Your task to perform on an android device: Show me popular videos on Youtube Image 0: 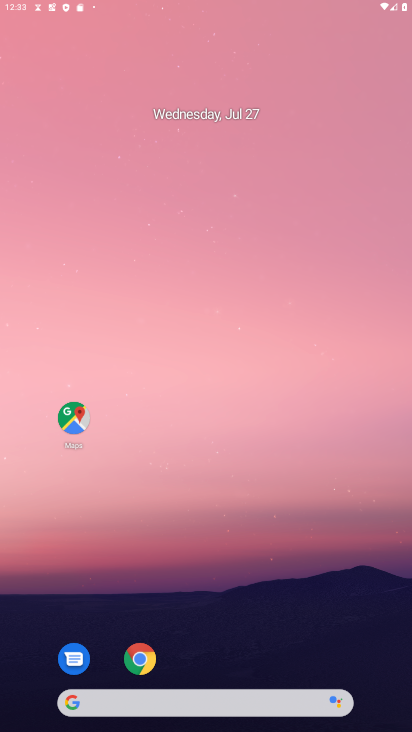
Step 0: press home button
Your task to perform on an android device: Show me popular videos on Youtube Image 1: 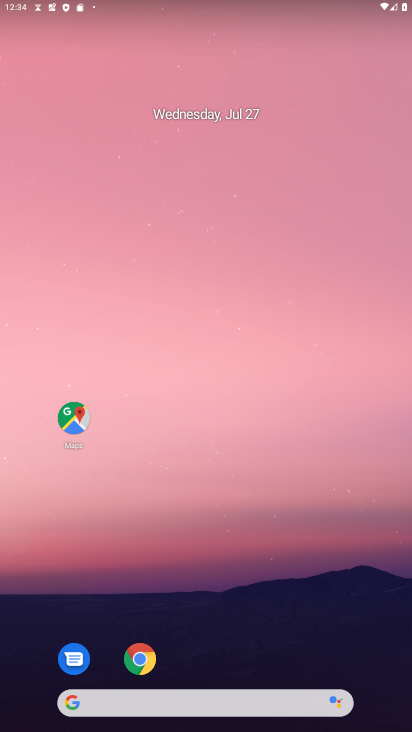
Step 1: drag from (226, 670) to (222, 153)
Your task to perform on an android device: Show me popular videos on Youtube Image 2: 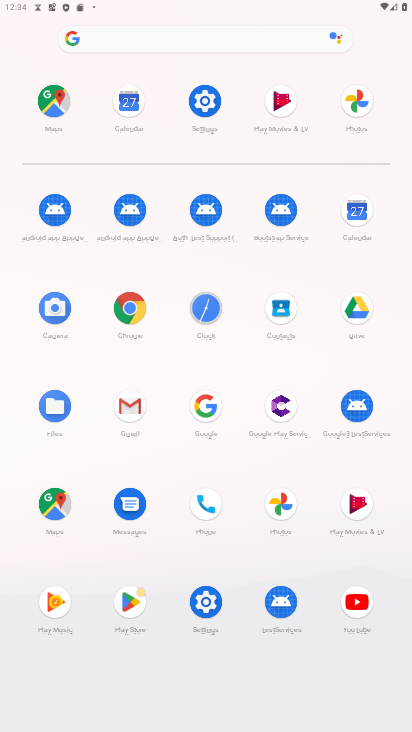
Step 2: click (354, 594)
Your task to perform on an android device: Show me popular videos on Youtube Image 3: 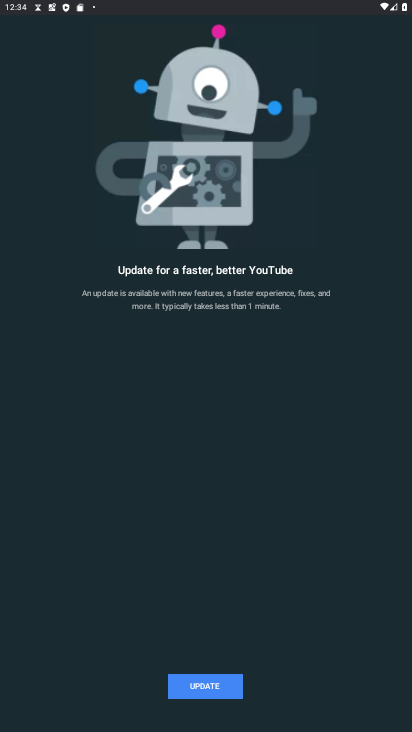
Step 3: click (202, 677)
Your task to perform on an android device: Show me popular videos on Youtube Image 4: 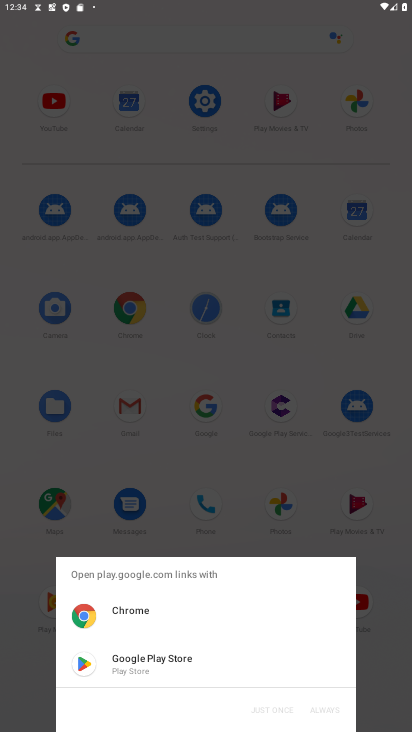
Step 4: click (130, 662)
Your task to perform on an android device: Show me popular videos on Youtube Image 5: 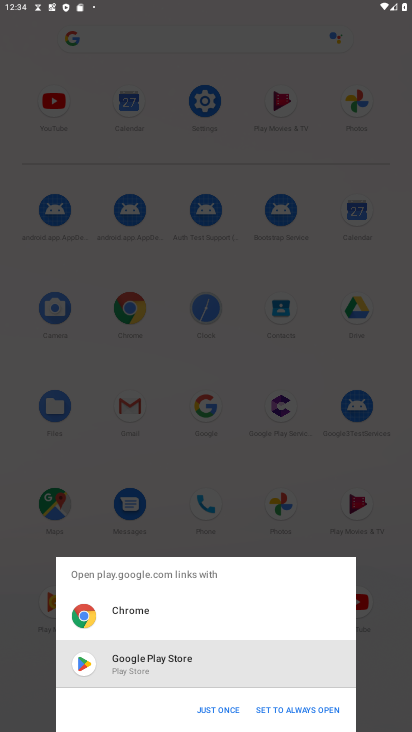
Step 5: click (216, 711)
Your task to perform on an android device: Show me popular videos on Youtube Image 6: 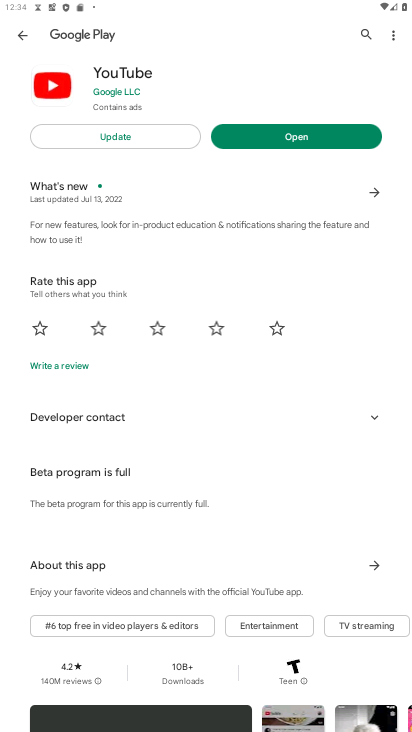
Step 6: click (112, 137)
Your task to perform on an android device: Show me popular videos on Youtube Image 7: 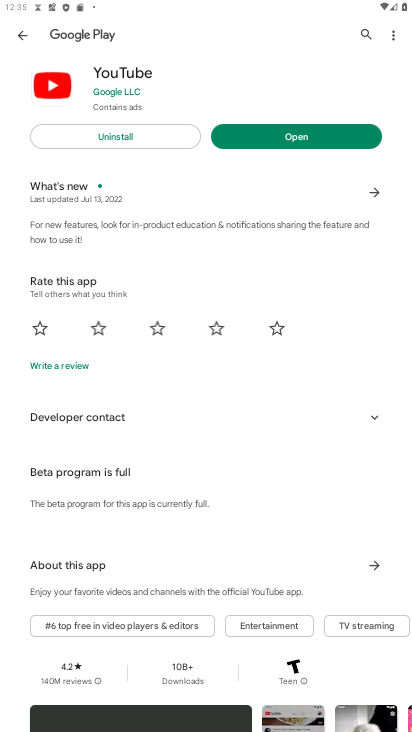
Step 7: click (292, 137)
Your task to perform on an android device: Show me popular videos on Youtube Image 8: 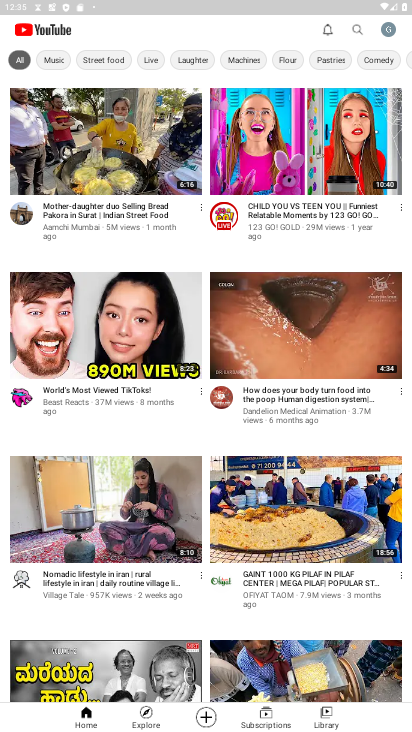
Step 8: click (140, 718)
Your task to perform on an android device: Show me popular videos on Youtube Image 9: 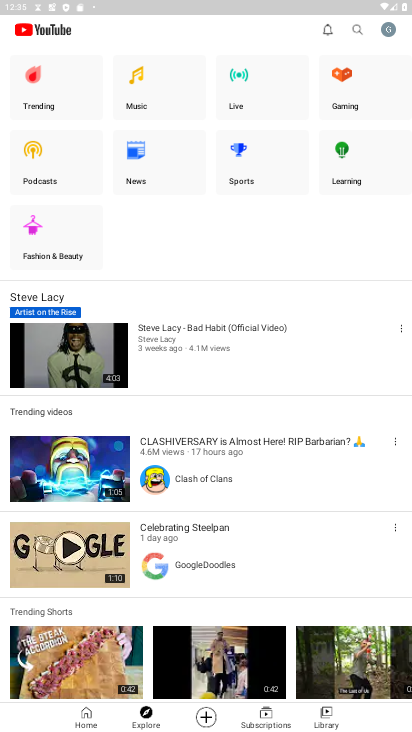
Step 9: click (45, 82)
Your task to perform on an android device: Show me popular videos on Youtube Image 10: 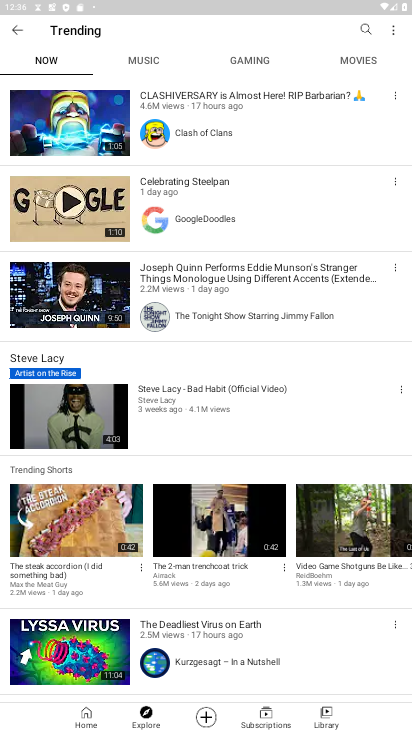
Step 10: task complete